Your task to perform on an android device: Open CNN.com Image 0: 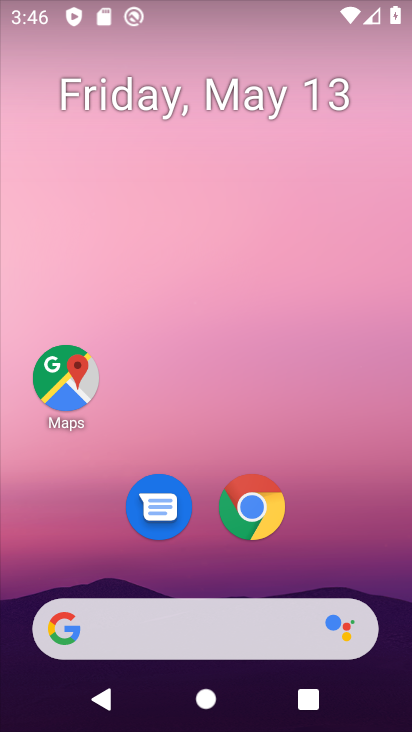
Step 0: click (260, 522)
Your task to perform on an android device: Open CNN.com Image 1: 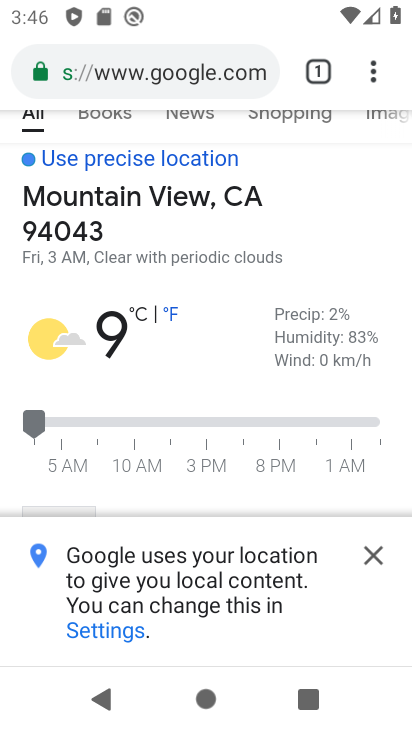
Step 1: click (175, 63)
Your task to perform on an android device: Open CNN.com Image 2: 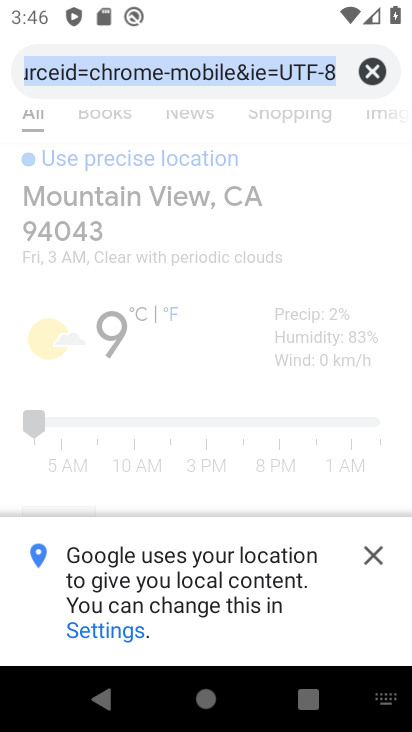
Step 2: click (379, 75)
Your task to perform on an android device: Open CNN.com Image 3: 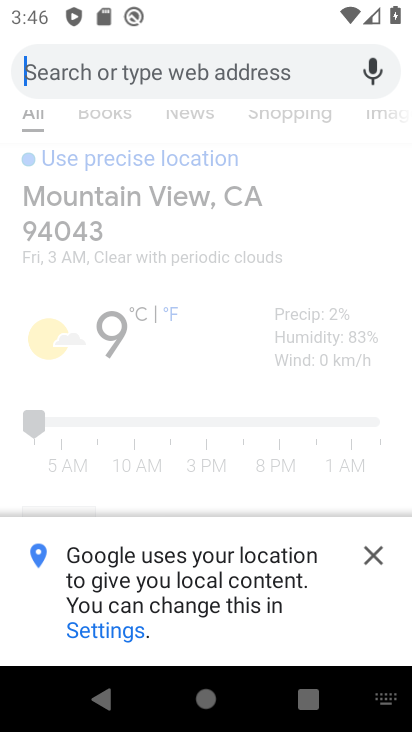
Step 3: type "cnn.com"
Your task to perform on an android device: Open CNN.com Image 4: 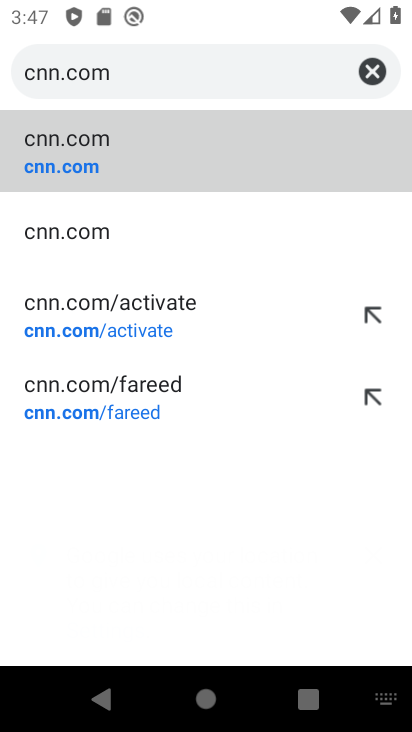
Step 4: click (98, 147)
Your task to perform on an android device: Open CNN.com Image 5: 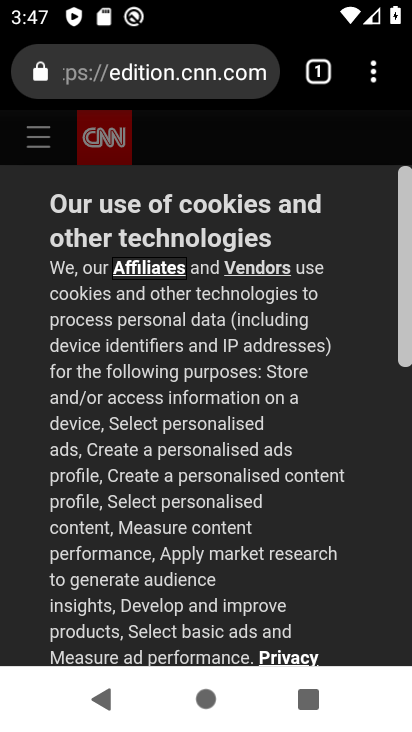
Step 5: task complete